Your task to perform on an android device: Open the phone app and click the voicemail tab. Image 0: 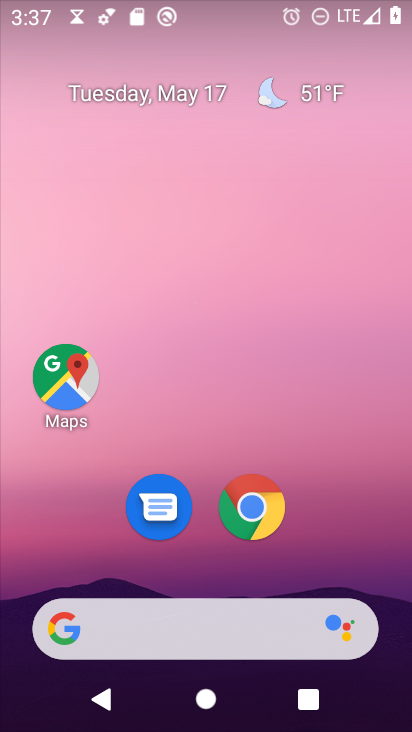
Step 0: drag from (236, 561) to (229, 35)
Your task to perform on an android device: Open the phone app and click the voicemail tab. Image 1: 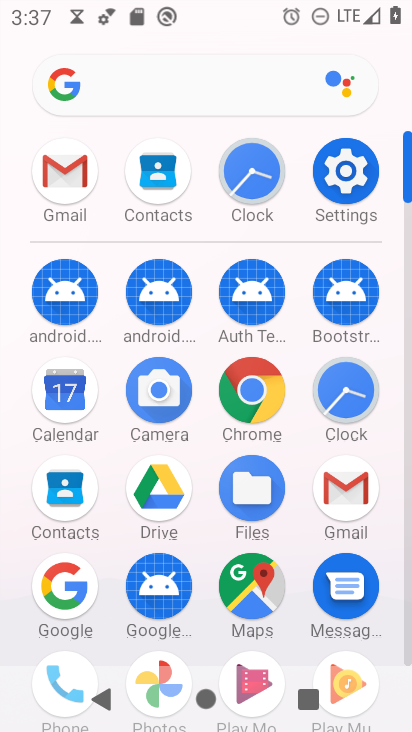
Step 1: drag from (101, 635) to (101, 484)
Your task to perform on an android device: Open the phone app and click the voicemail tab. Image 2: 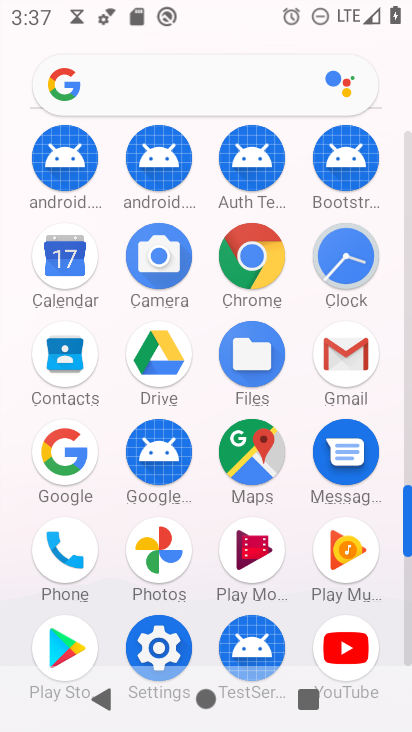
Step 2: click (66, 555)
Your task to perform on an android device: Open the phone app and click the voicemail tab. Image 3: 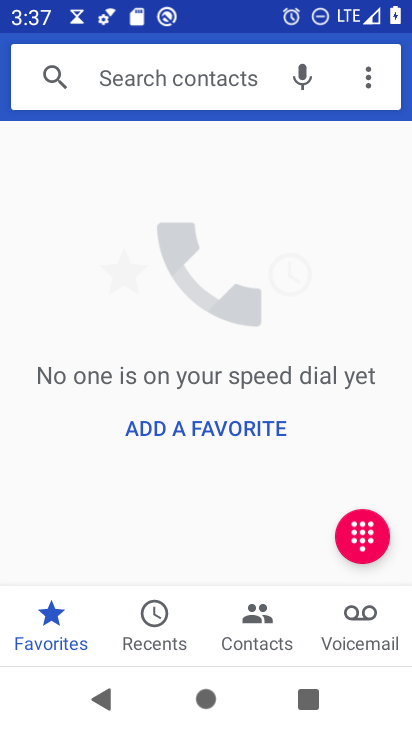
Step 3: click (352, 625)
Your task to perform on an android device: Open the phone app and click the voicemail tab. Image 4: 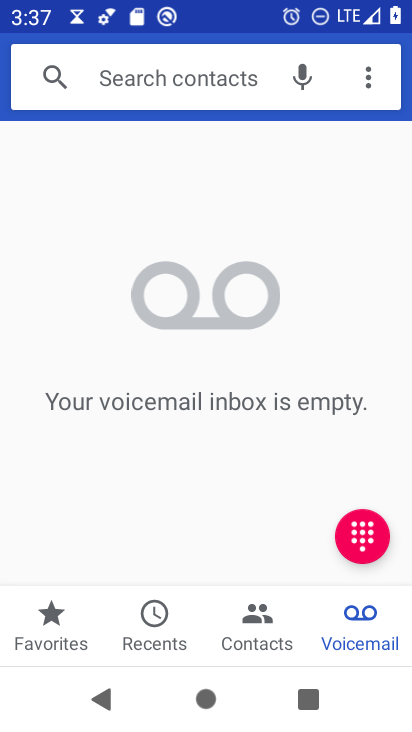
Step 4: task complete